Your task to perform on an android device: Search for sushi restaurants on Maps Image 0: 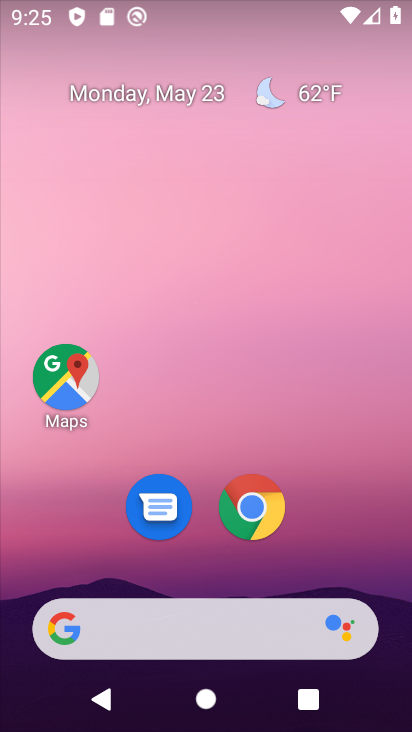
Step 0: click (62, 384)
Your task to perform on an android device: Search for sushi restaurants on Maps Image 1: 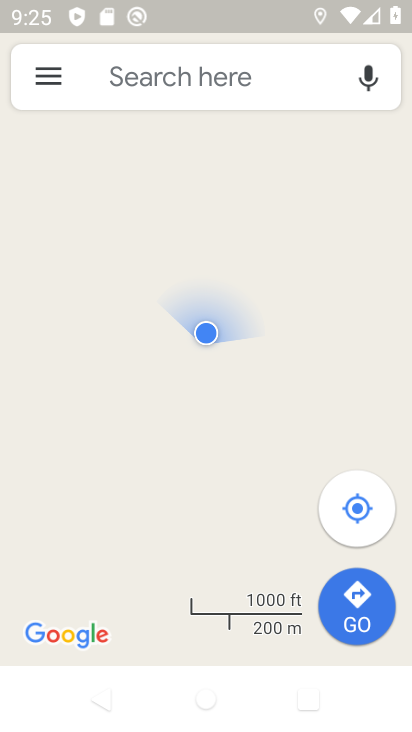
Step 1: click (166, 81)
Your task to perform on an android device: Search for sushi restaurants on Maps Image 2: 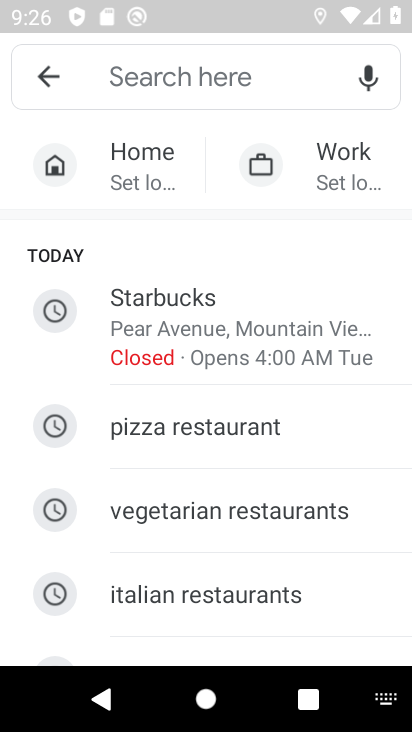
Step 2: type "sushi restaurants"
Your task to perform on an android device: Search for sushi restaurants on Maps Image 3: 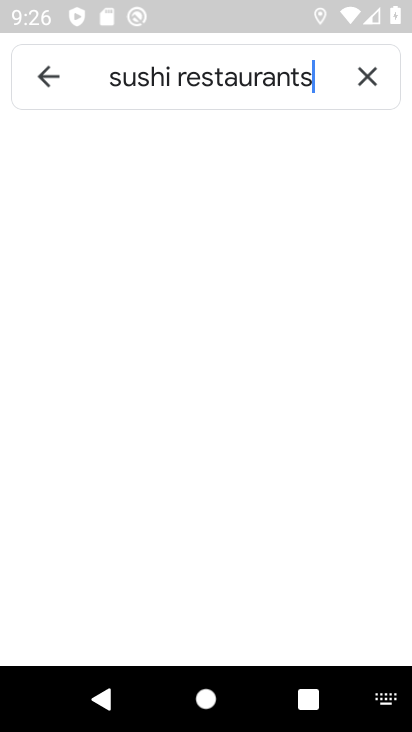
Step 3: type ""
Your task to perform on an android device: Search for sushi restaurants on Maps Image 4: 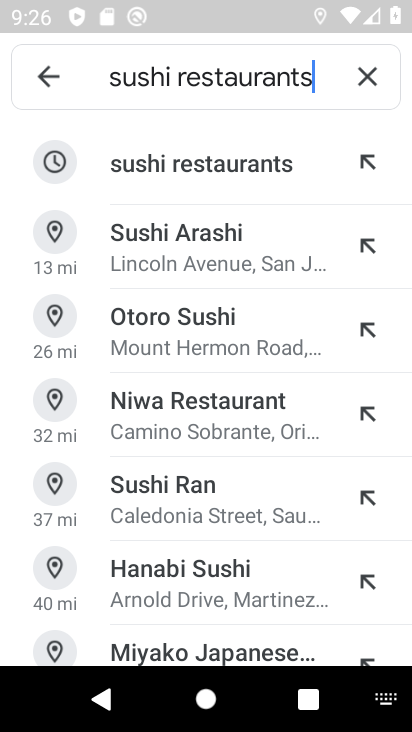
Step 4: click (174, 173)
Your task to perform on an android device: Search for sushi restaurants on Maps Image 5: 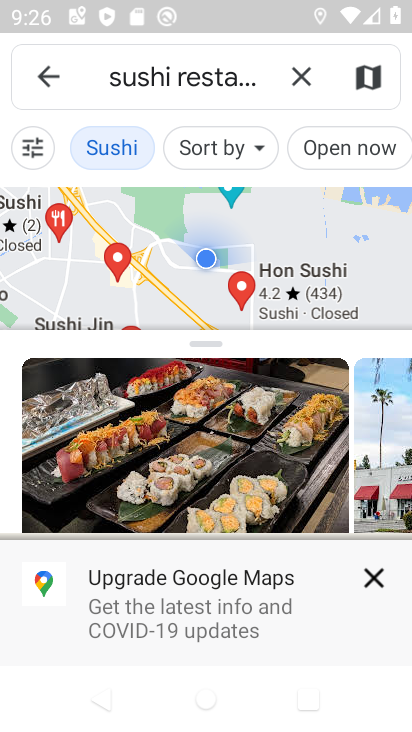
Step 5: click (370, 576)
Your task to perform on an android device: Search for sushi restaurants on Maps Image 6: 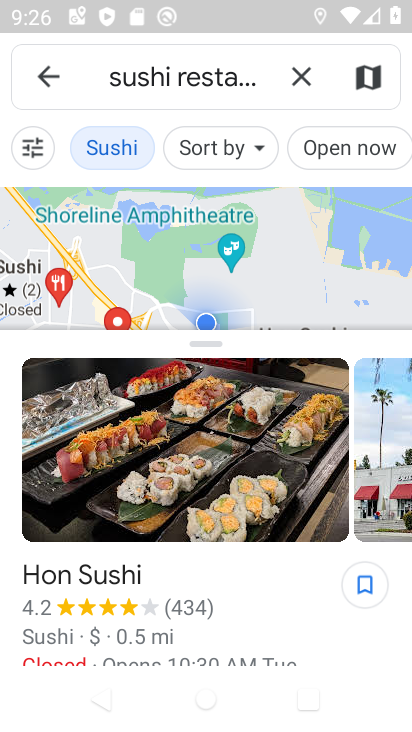
Step 6: task complete